Your task to perform on an android device: open app "Pinterest" Image 0: 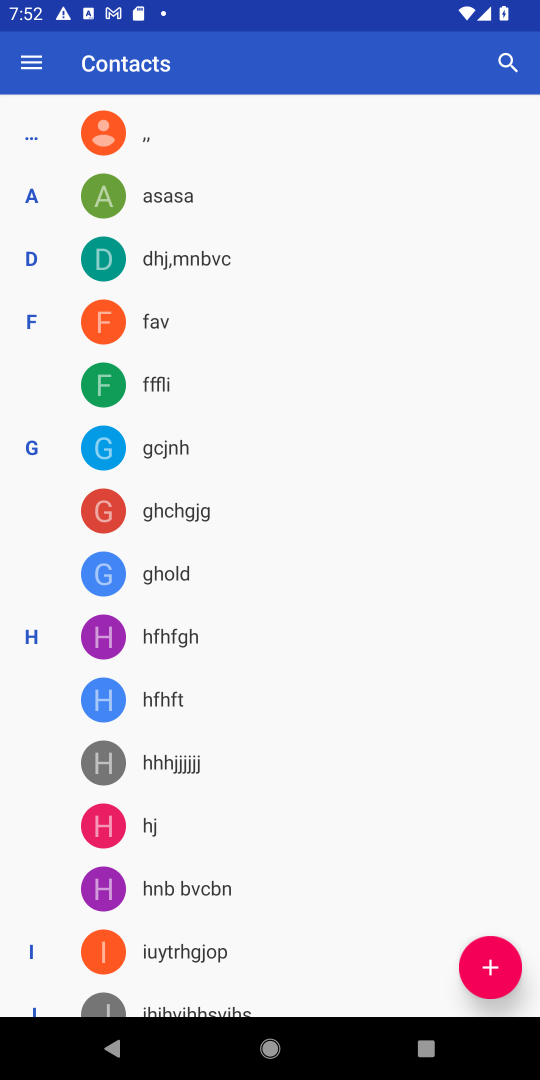
Step 0: press home button
Your task to perform on an android device: open app "Pinterest" Image 1: 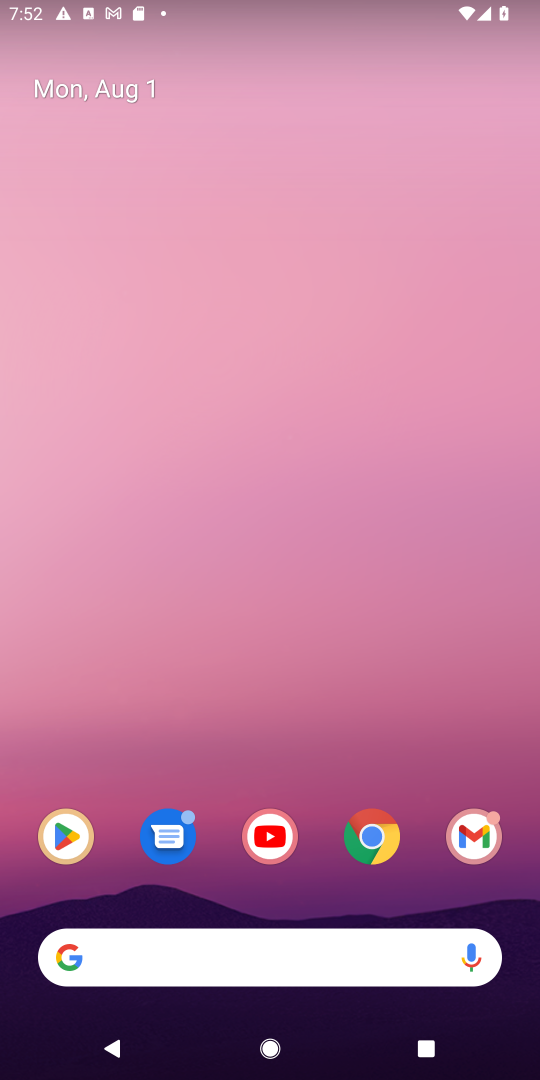
Step 1: click (73, 827)
Your task to perform on an android device: open app "Pinterest" Image 2: 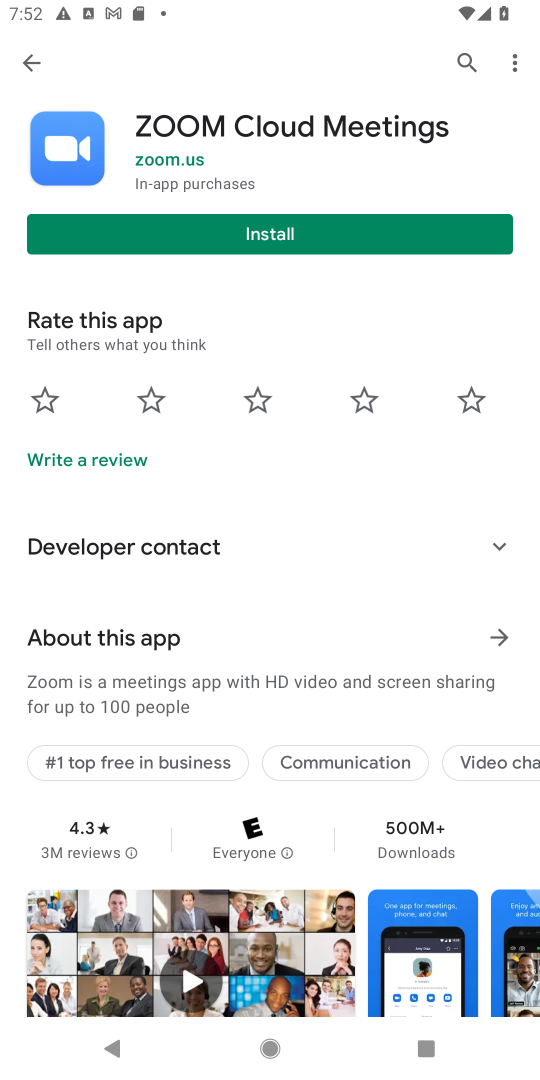
Step 2: click (460, 52)
Your task to perform on an android device: open app "Pinterest" Image 3: 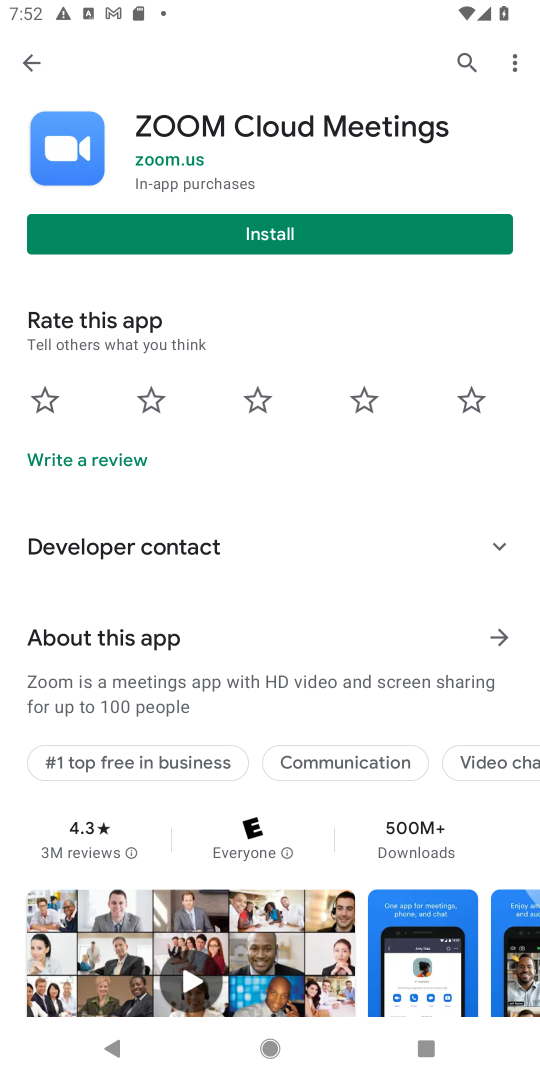
Step 3: click (463, 62)
Your task to perform on an android device: open app "Pinterest" Image 4: 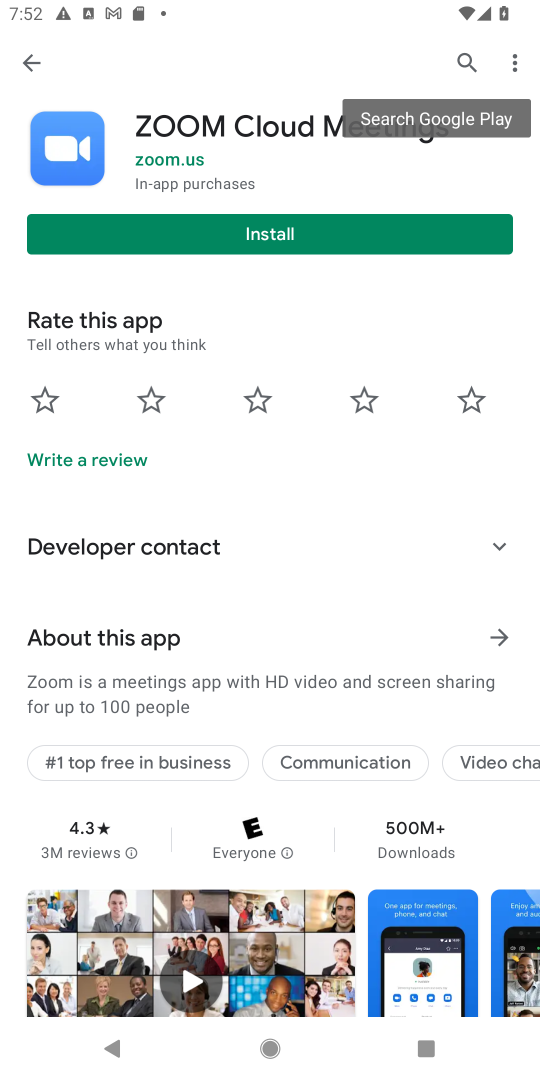
Step 4: click (463, 60)
Your task to perform on an android device: open app "Pinterest" Image 5: 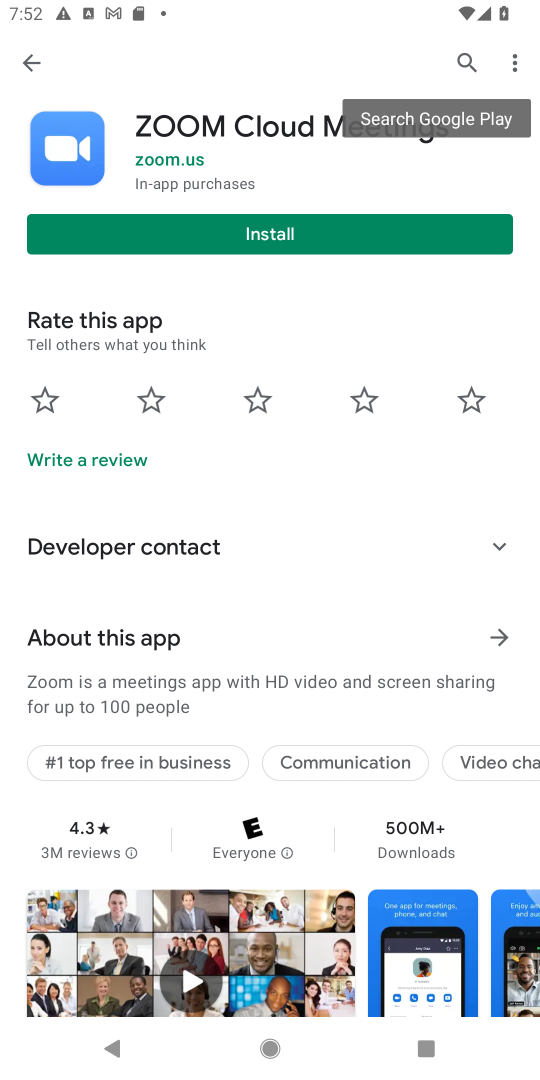
Step 5: click (465, 55)
Your task to perform on an android device: open app "Pinterest" Image 6: 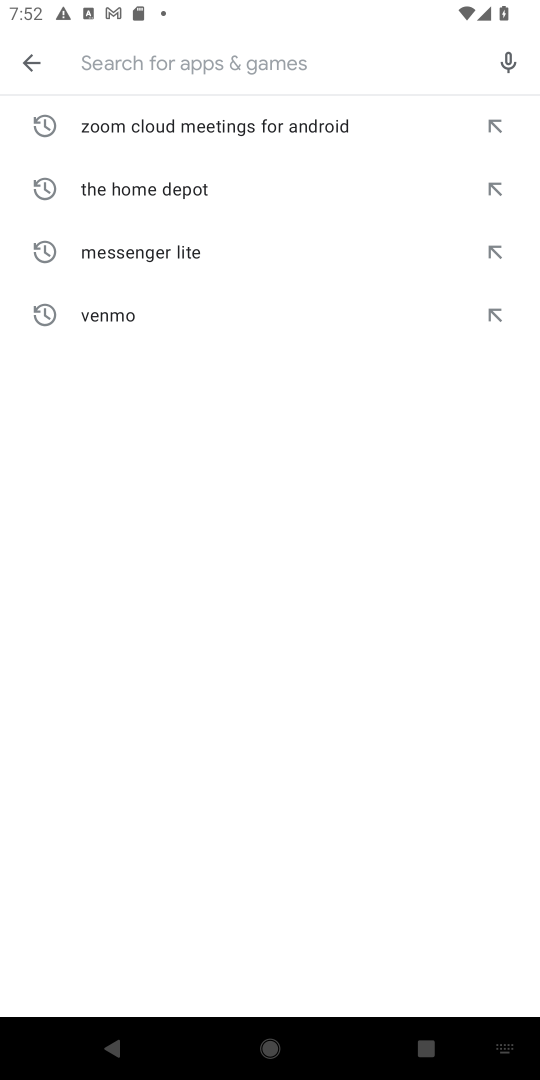
Step 6: type "Pinterest"
Your task to perform on an android device: open app "Pinterest" Image 7: 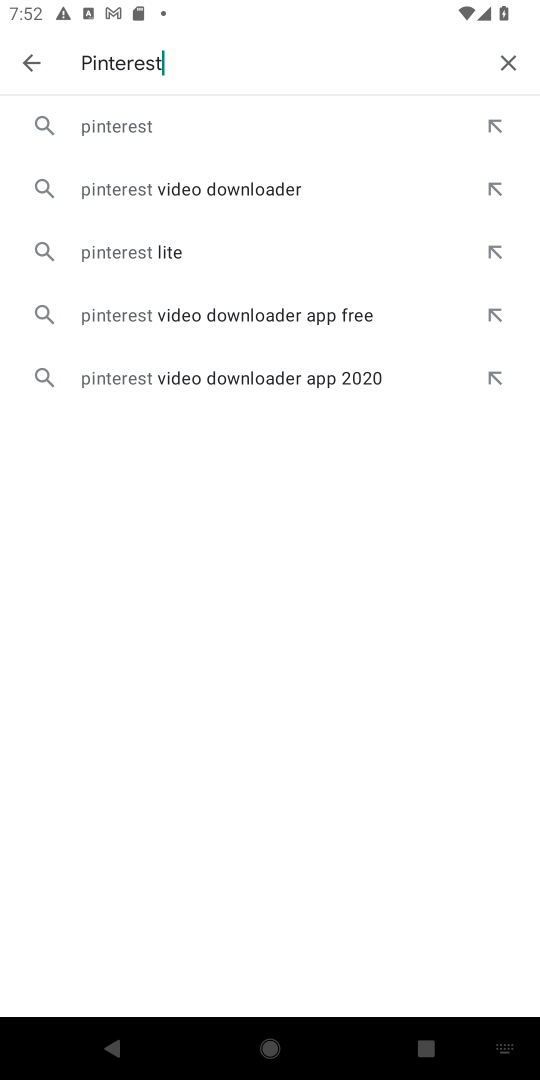
Step 7: click (127, 130)
Your task to perform on an android device: open app "Pinterest" Image 8: 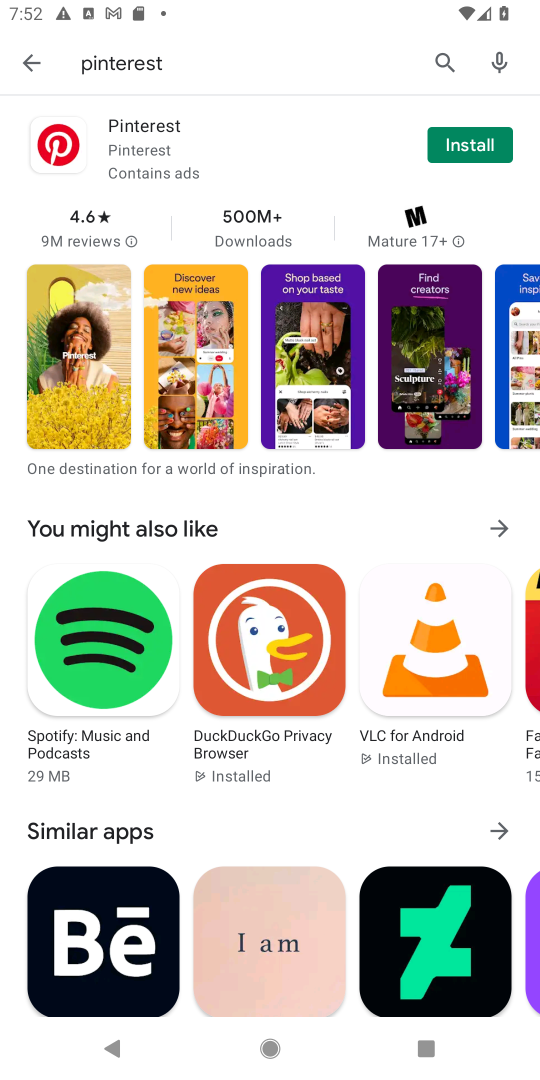
Step 8: task complete